Your task to perform on an android device: toggle wifi Image 0: 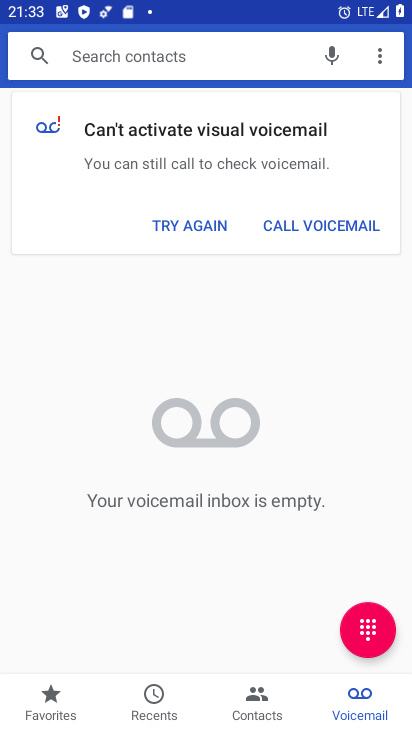
Step 0: drag from (334, 28) to (293, 577)
Your task to perform on an android device: toggle wifi Image 1: 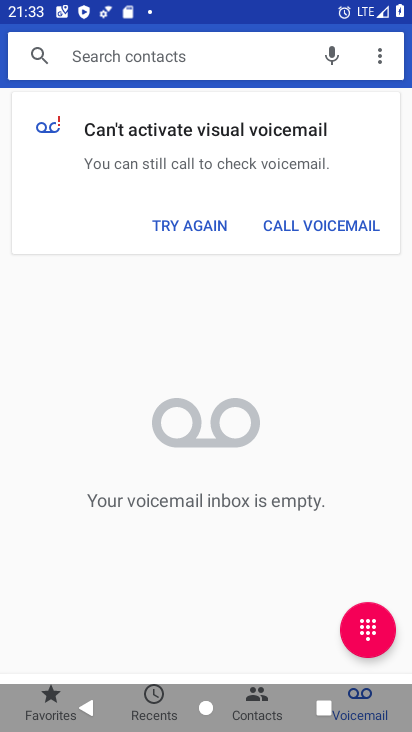
Step 1: drag from (116, 4) to (151, 671)
Your task to perform on an android device: toggle wifi Image 2: 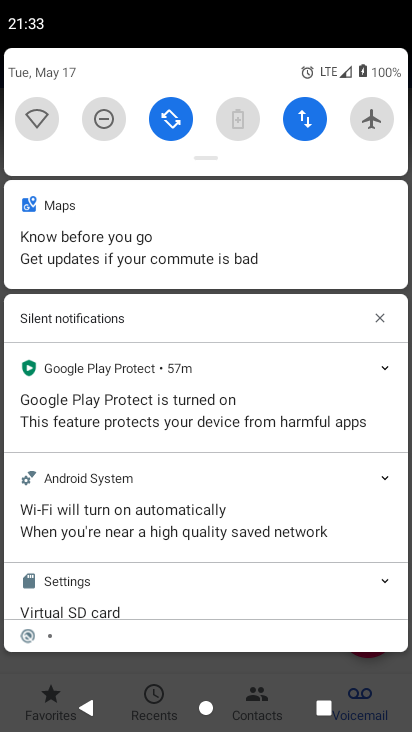
Step 2: click (38, 128)
Your task to perform on an android device: toggle wifi Image 3: 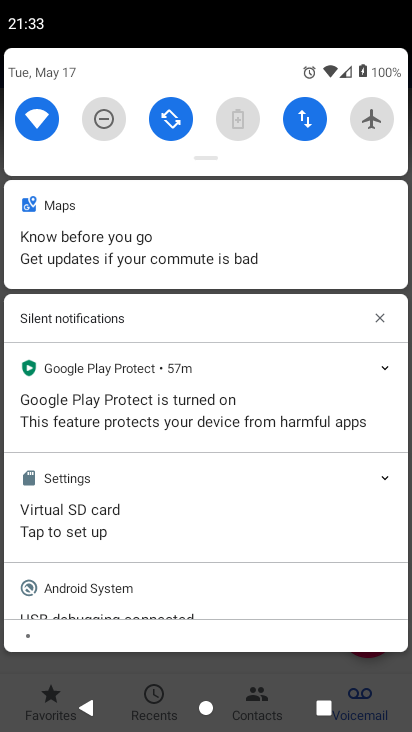
Step 3: task complete